Your task to perform on an android device: Open calendar and show me the second week of next month Image 0: 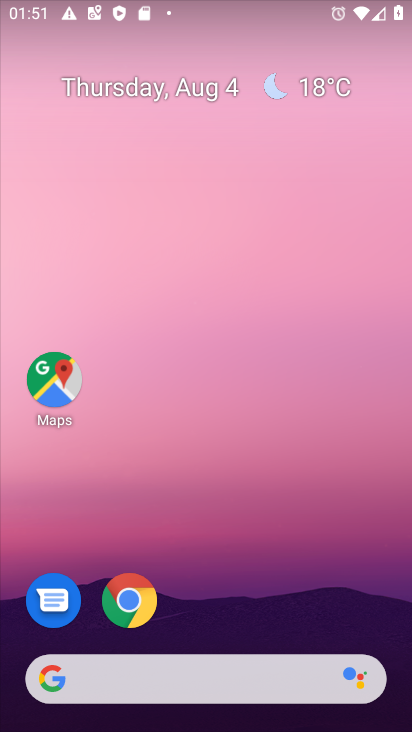
Step 0: drag from (153, 651) to (298, 106)
Your task to perform on an android device: Open calendar and show me the second week of next month Image 1: 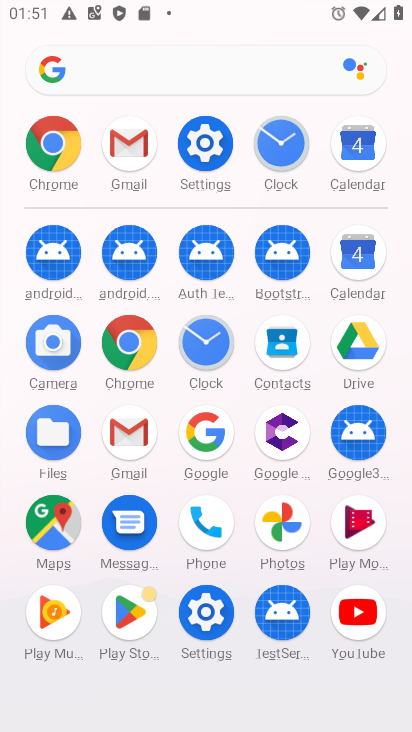
Step 1: click (358, 153)
Your task to perform on an android device: Open calendar and show me the second week of next month Image 2: 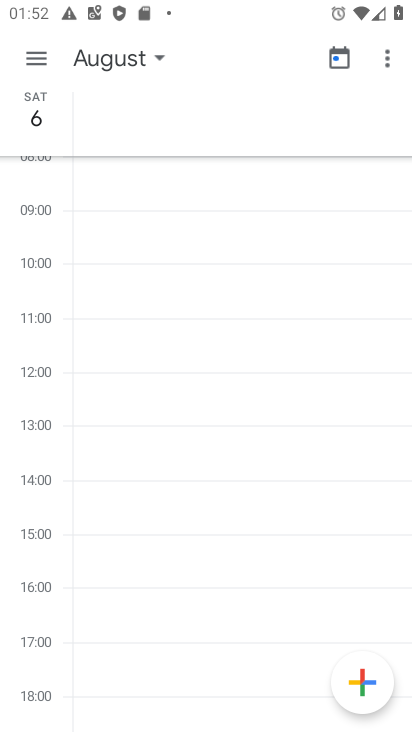
Step 2: click (112, 62)
Your task to perform on an android device: Open calendar and show me the second week of next month Image 3: 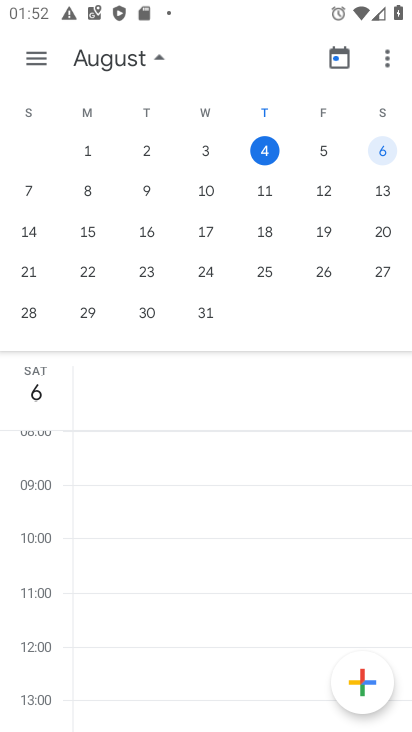
Step 3: drag from (371, 230) to (12, 267)
Your task to perform on an android device: Open calendar and show me the second week of next month Image 4: 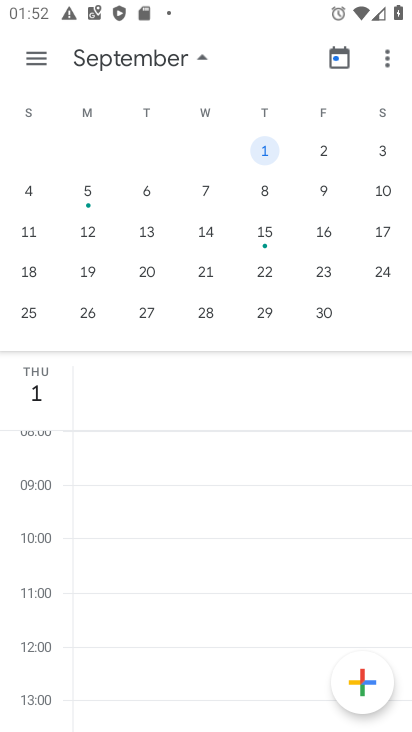
Step 4: click (25, 184)
Your task to perform on an android device: Open calendar and show me the second week of next month Image 5: 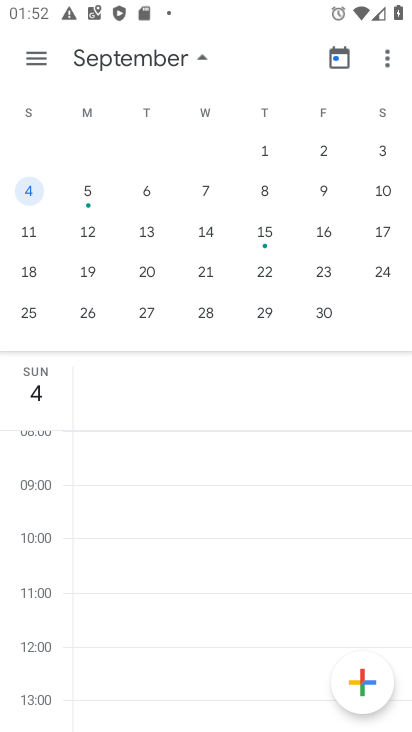
Step 5: click (33, 56)
Your task to perform on an android device: Open calendar and show me the second week of next month Image 6: 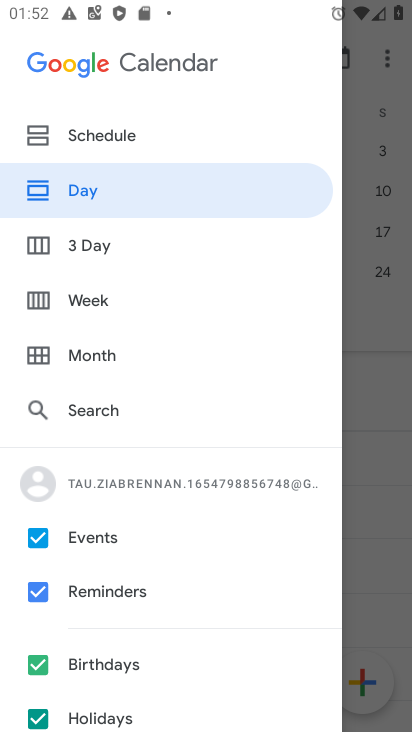
Step 6: click (91, 302)
Your task to perform on an android device: Open calendar and show me the second week of next month Image 7: 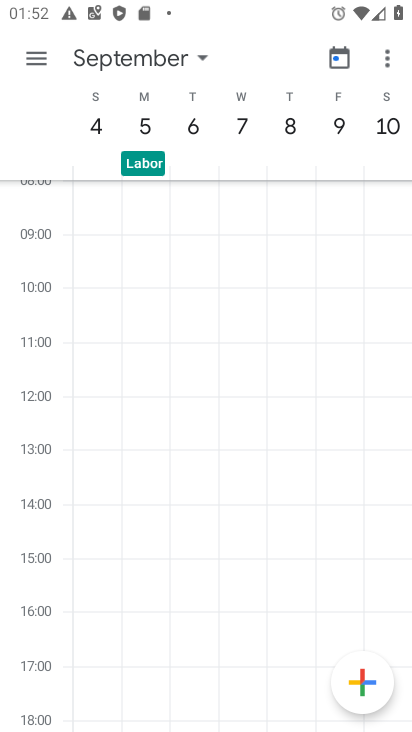
Step 7: task complete